Your task to perform on an android device: Show me the alarms in the clock app Image 0: 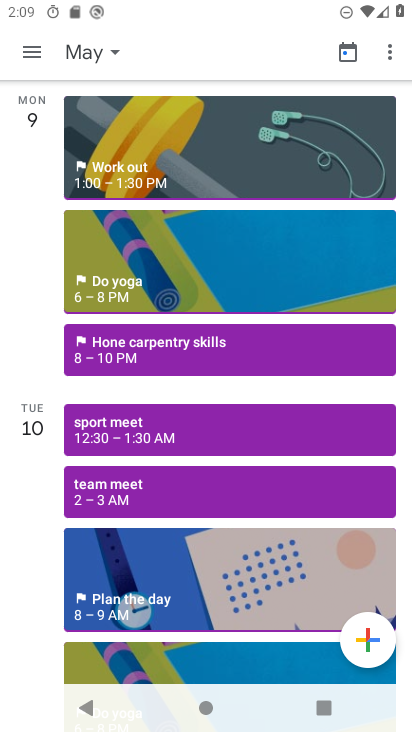
Step 0: press home button
Your task to perform on an android device: Show me the alarms in the clock app Image 1: 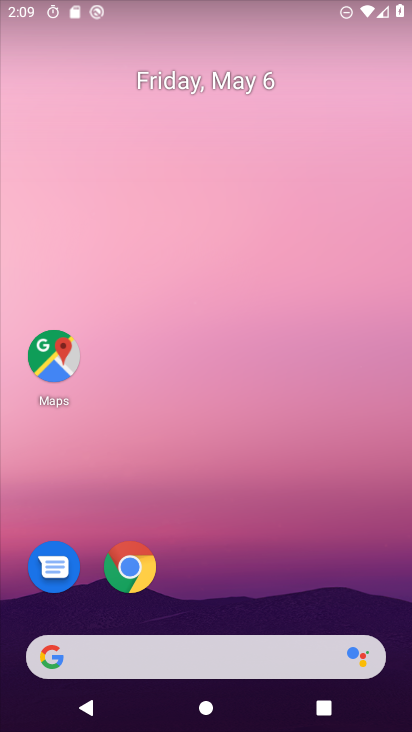
Step 1: drag from (302, 676) to (278, 306)
Your task to perform on an android device: Show me the alarms in the clock app Image 2: 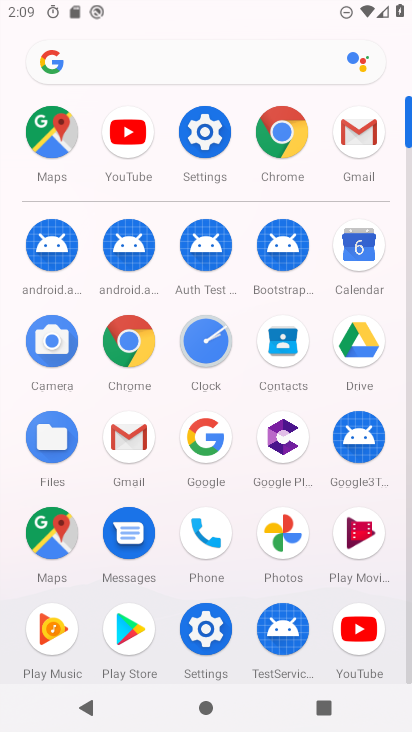
Step 2: click (202, 324)
Your task to perform on an android device: Show me the alarms in the clock app Image 3: 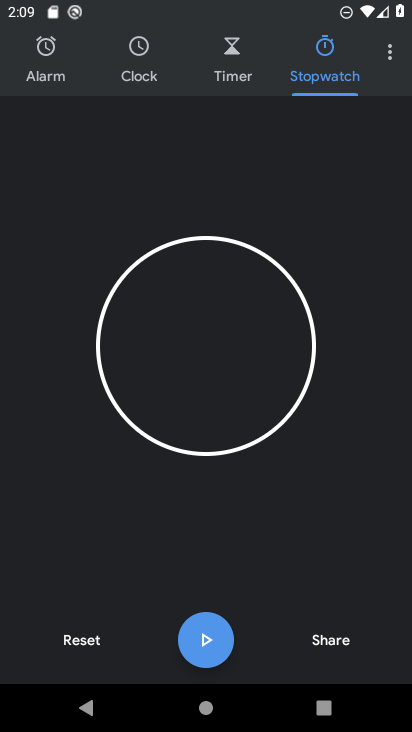
Step 3: click (33, 63)
Your task to perform on an android device: Show me the alarms in the clock app Image 4: 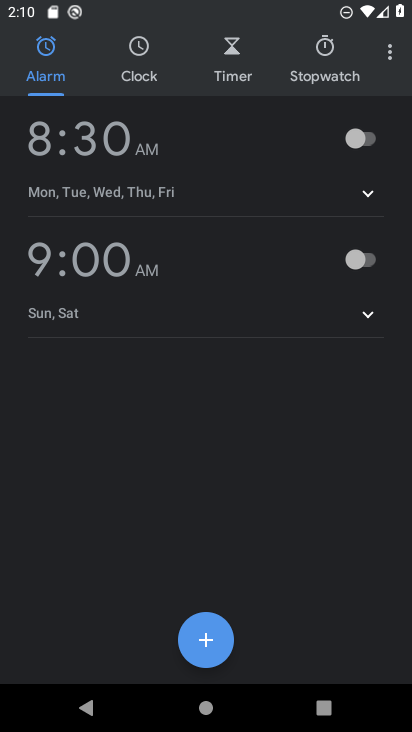
Step 4: click (202, 177)
Your task to perform on an android device: Show me the alarms in the clock app Image 5: 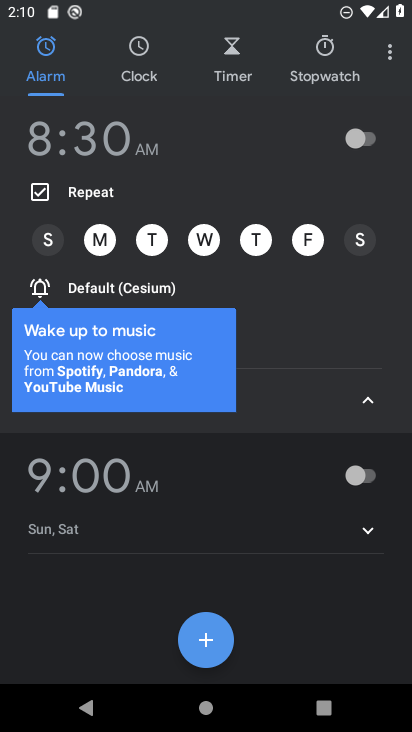
Step 5: task complete